Your task to perform on an android device: choose inbox layout in the gmail app Image 0: 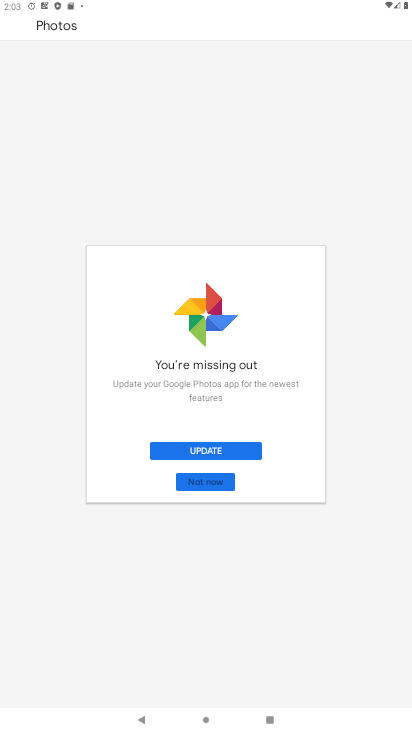
Step 0: press home button
Your task to perform on an android device: choose inbox layout in the gmail app Image 1: 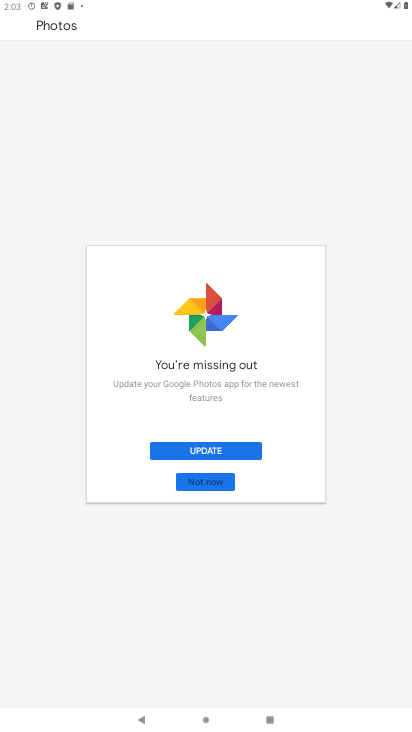
Step 1: drag from (399, 658) to (224, 11)
Your task to perform on an android device: choose inbox layout in the gmail app Image 2: 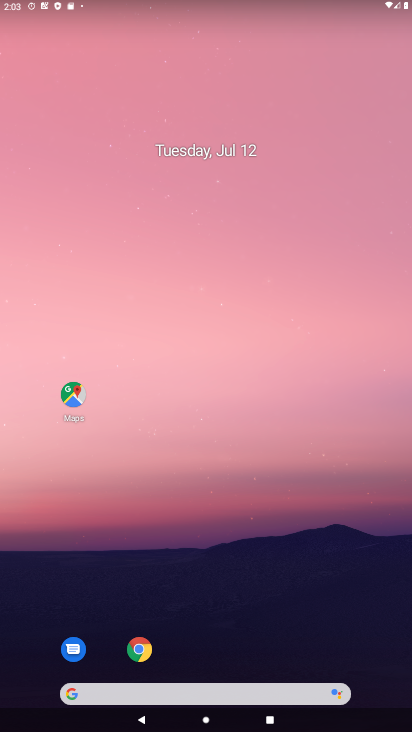
Step 2: drag from (382, 680) to (257, 243)
Your task to perform on an android device: choose inbox layout in the gmail app Image 3: 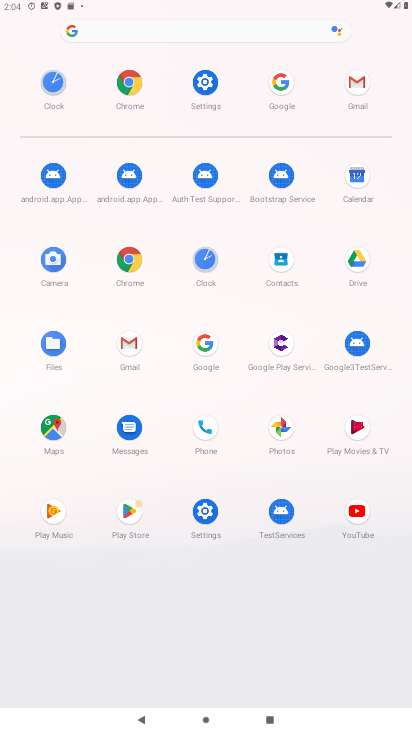
Step 3: click (128, 354)
Your task to perform on an android device: choose inbox layout in the gmail app Image 4: 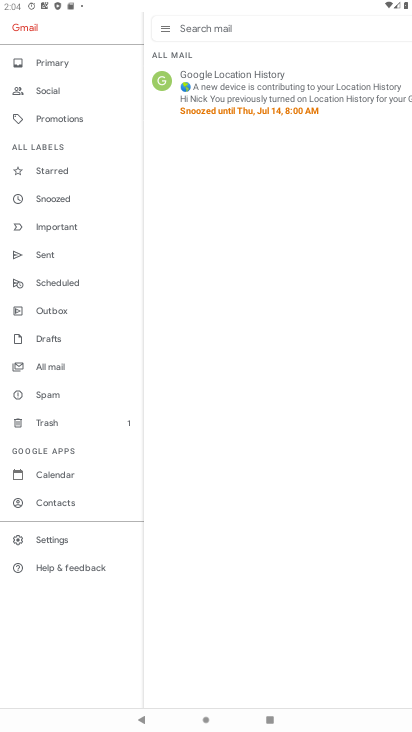
Step 4: task complete